Your task to perform on an android device: Open location settings Image 0: 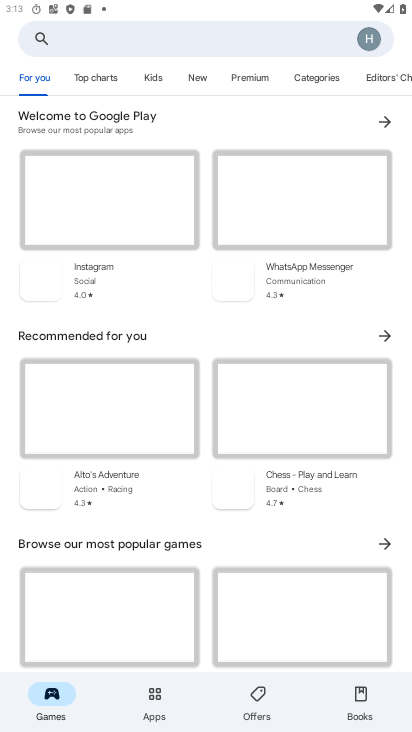
Step 0: press home button
Your task to perform on an android device: Open location settings Image 1: 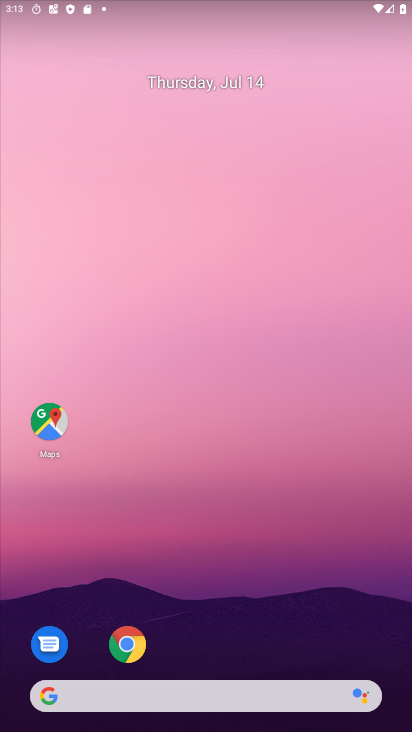
Step 1: drag from (48, 644) to (241, 190)
Your task to perform on an android device: Open location settings Image 2: 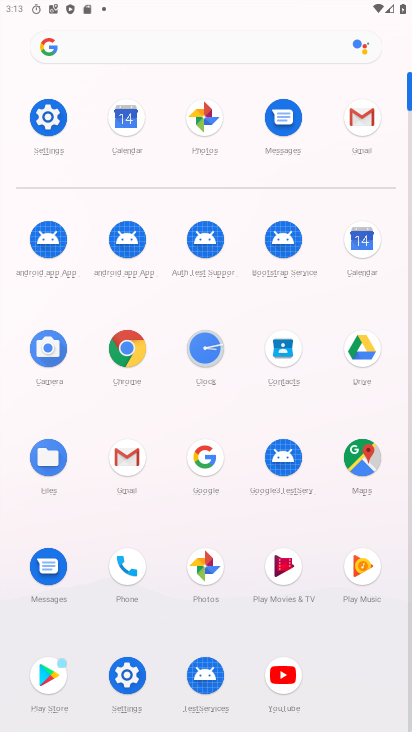
Step 2: click (130, 674)
Your task to perform on an android device: Open location settings Image 3: 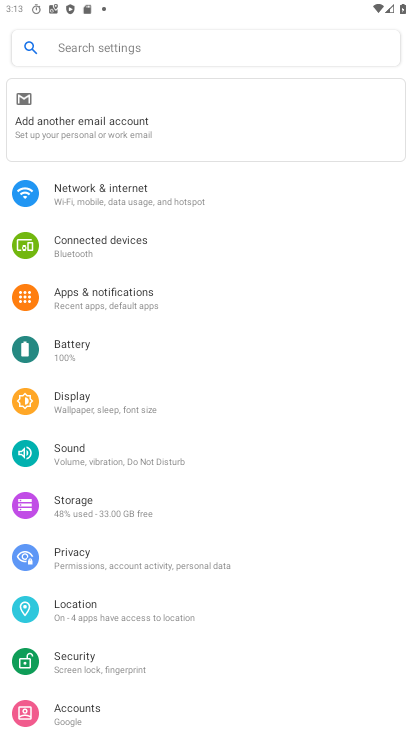
Step 3: click (107, 621)
Your task to perform on an android device: Open location settings Image 4: 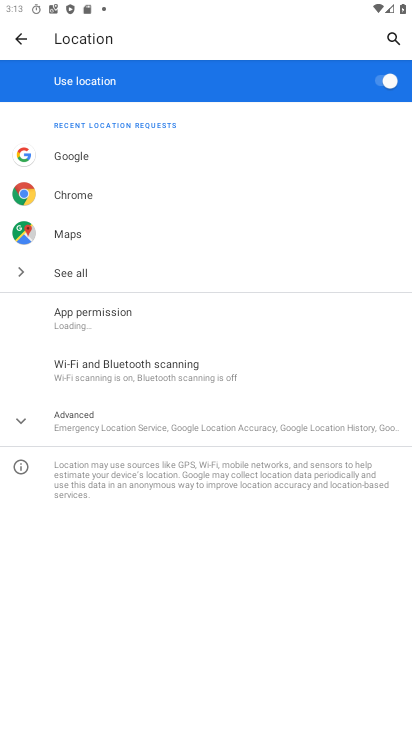
Step 4: click (114, 433)
Your task to perform on an android device: Open location settings Image 5: 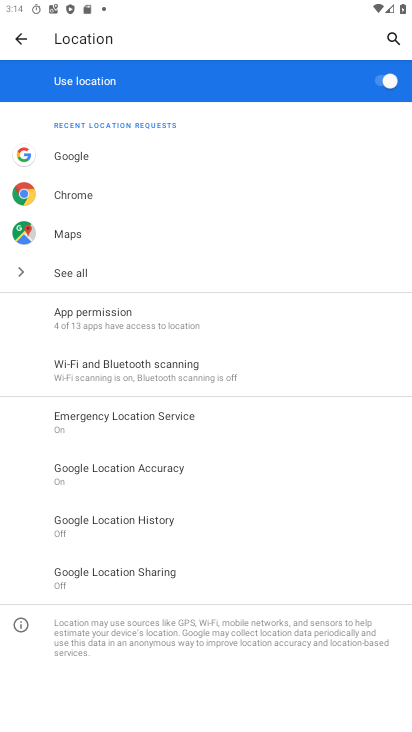
Step 5: task complete